Your task to perform on an android device: Open Yahoo.com Image 0: 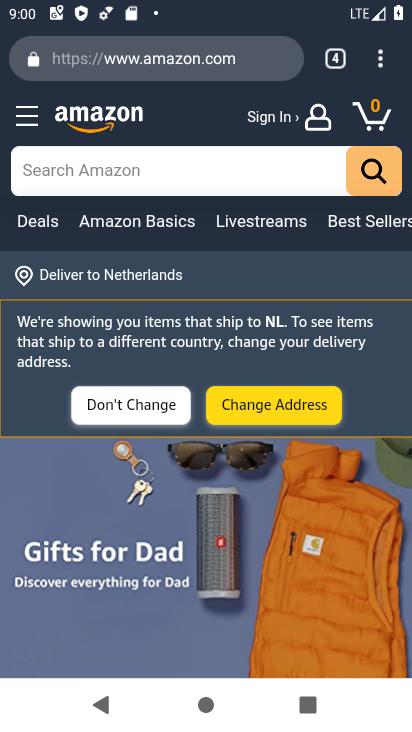
Step 0: press home button
Your task to perform on an android device: Open Yahoo.com Image 1: 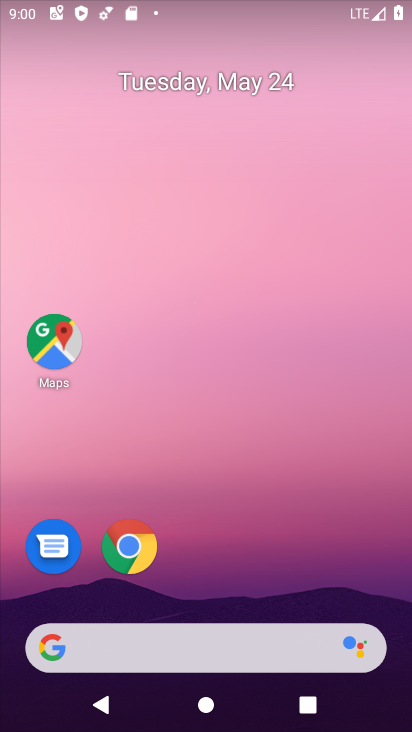
Step 1: click (275, 653)
Your task to perform on an android device: Open Yahoo.com Image 2: 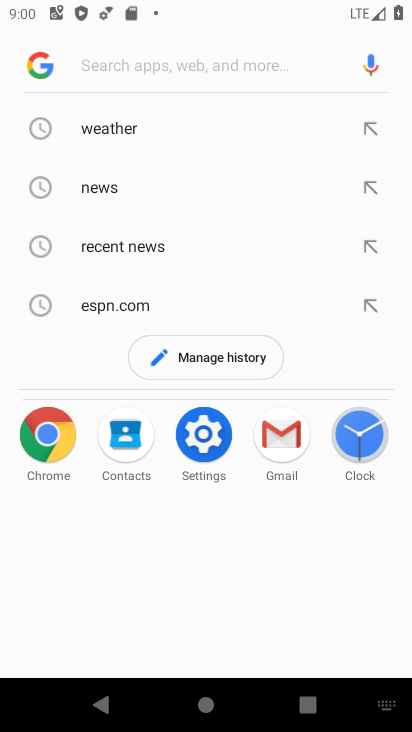
Step 2: type "yahoo.com"
Your task to perform on an android device: Open Yahoo.com Image 3: 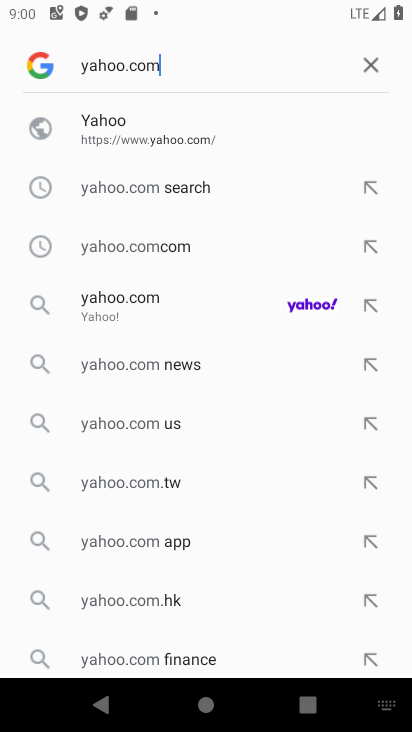
Step 3: click (187, 312)
Your task to perform on an android device: Open Yahoo.com Image 4: 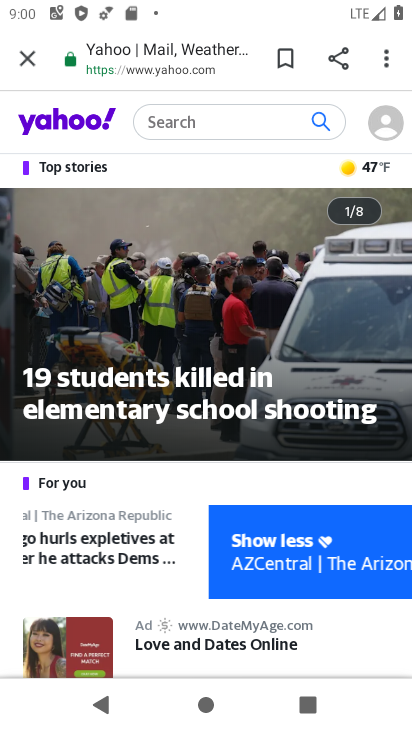
Step 4: task complete